Your task to perform on an android device: Go to wifi settings Image 0: 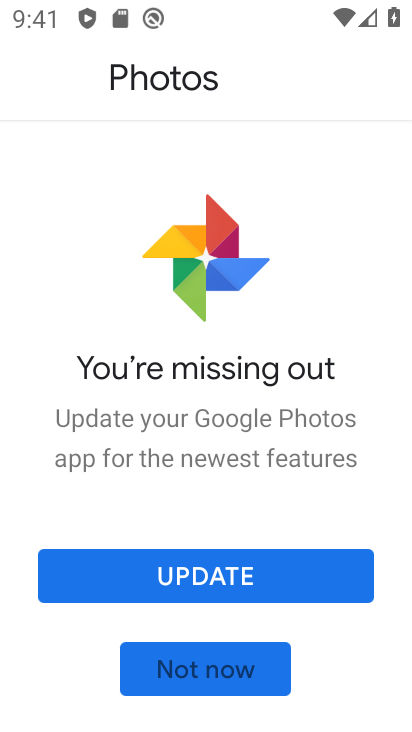
Step 0: click (399, 448)
Your task to perform on an android device: Go to wifi settings Image 1: 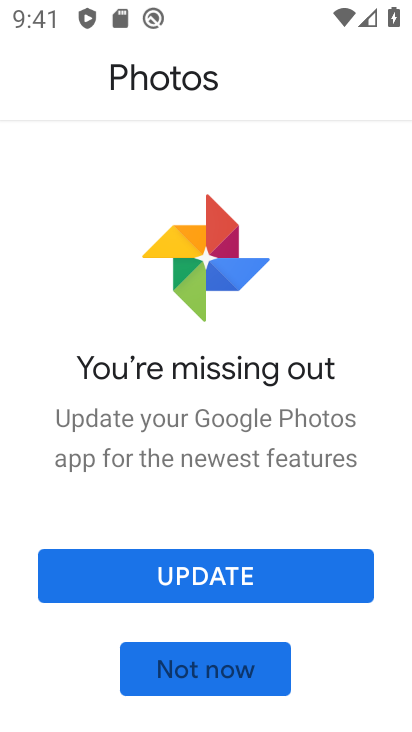
Step 1: press back button
Your task to perform on an android device: Go to wifi settings Image 2: 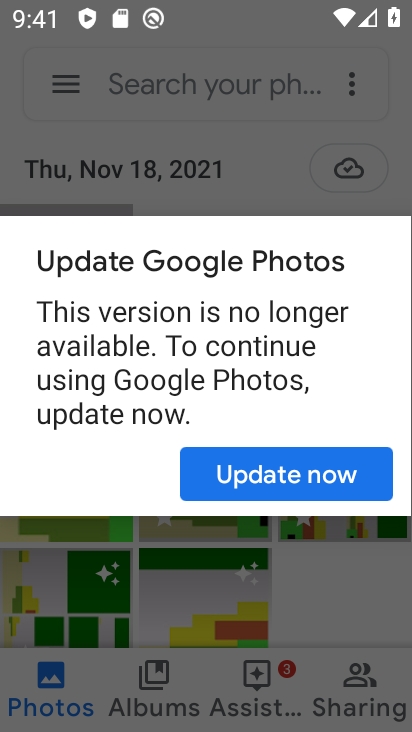
Step 2: press back button
Your task to perform on an android device: Go to wifi settings Image 3: 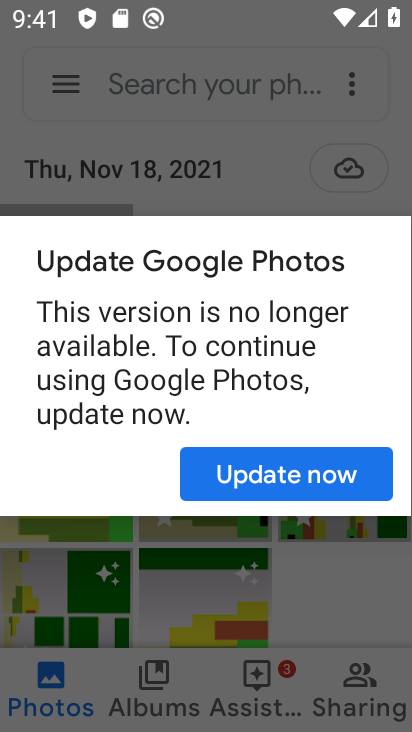
Step 3: press back button
Your task to perform on an android device: Go to wifi settings Image 4: 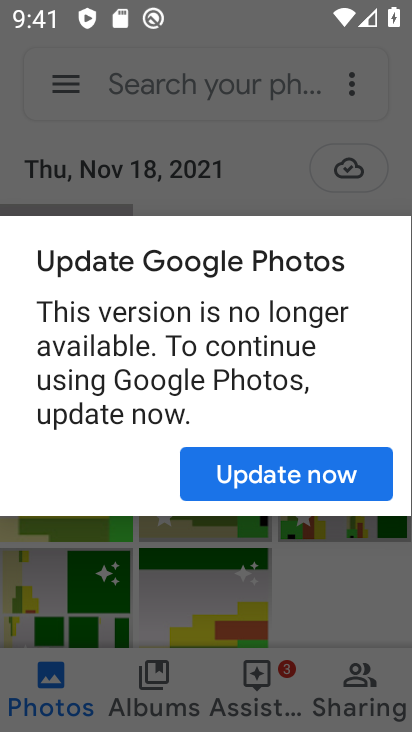
Step 4: press home button
Your task to perform on an android device: Go to wifi settings Image 5: 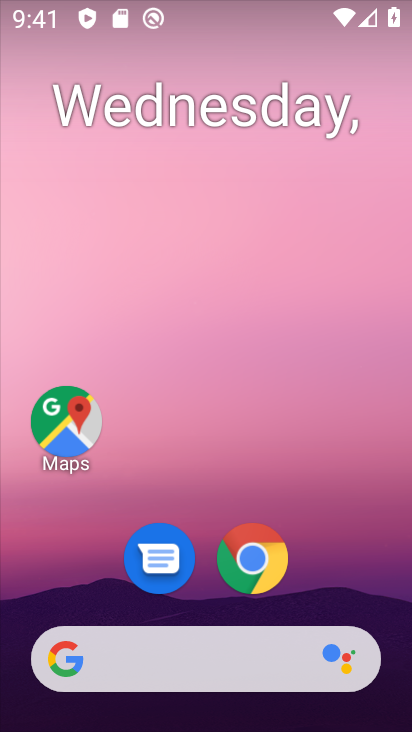
Step 5: drag from (194, 8) to (193, 518)
Your task to perform on an android device: Go to wifi settings Image 6: 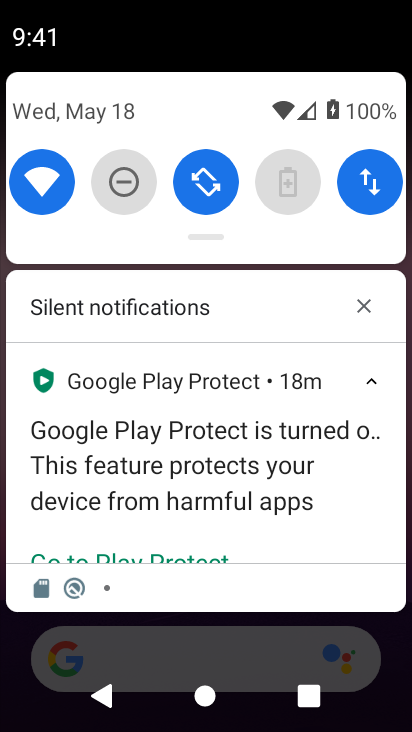
Step 6: click (29, 184)
Your task to perform on an android device: Go to wifi settings Image 7: 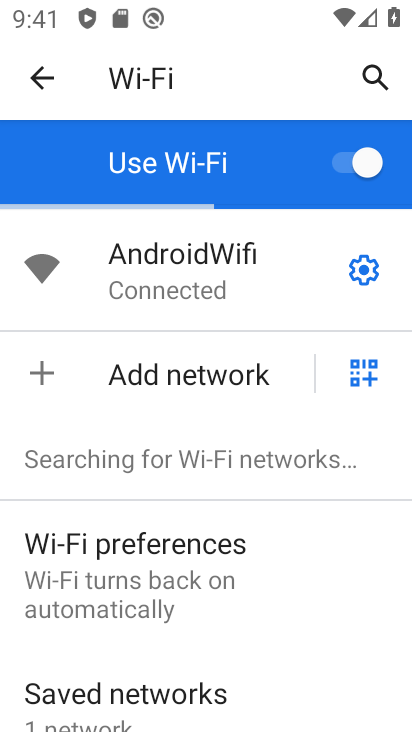
Step 7: click (365, 282)
Your task to perform on an android device: Go to wifi settings Image 8: 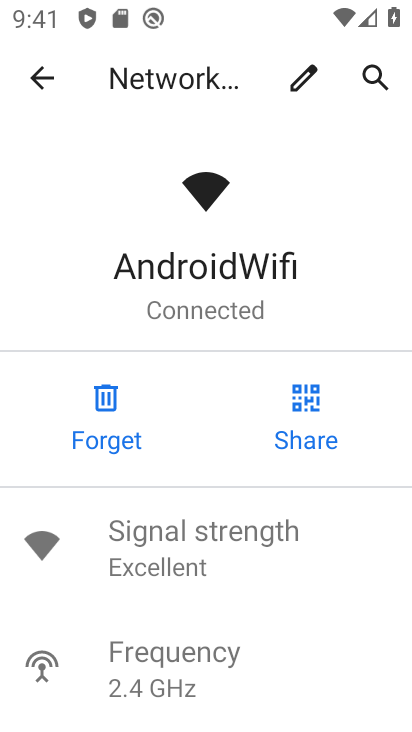
Step 8: task complete